Your task to perform on an android device: Open Youtube and go to "Your channel" Image 0: 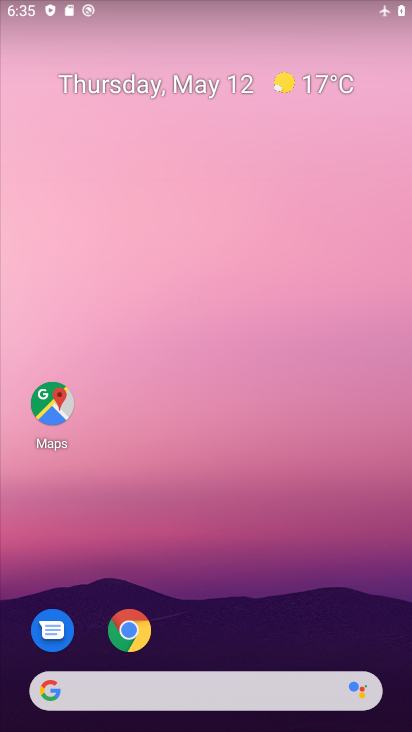
Step 0: drag from (327, 623) to (165, 215)
Your task to perform on an android device: Open Youtube and go to "Your channel" Image 1: 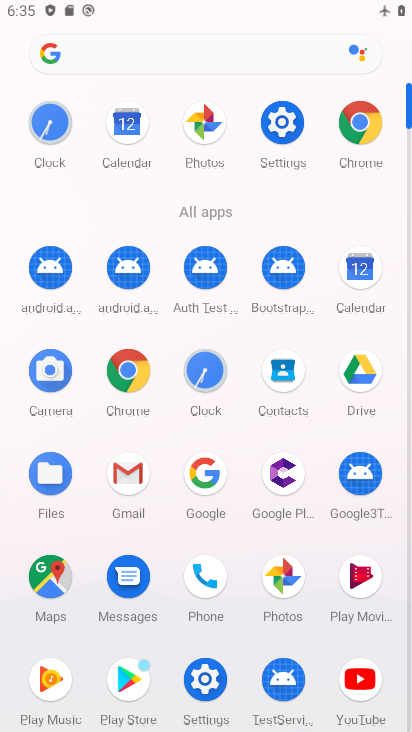
Step 1: click (361, 686)
Your task to perform on an android device: Open Youtube and go to "Your channel" Image 2: 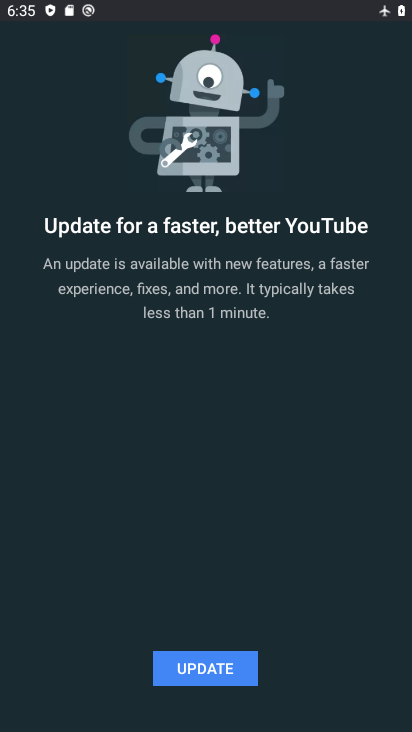
Step 2: click (206, 676)
Your task to perform on an android device: Open Youtube and go to "Your channel" Image 3: 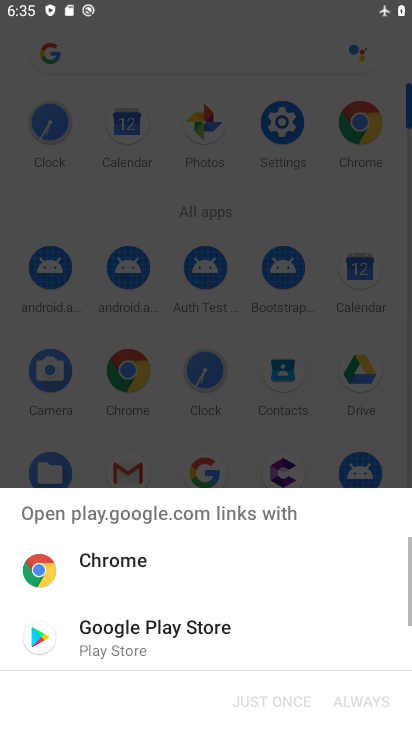
Step 3: click (85, 616)
Your task to perform on an android device: Open Youtube and go to "Your channel" Image 4: 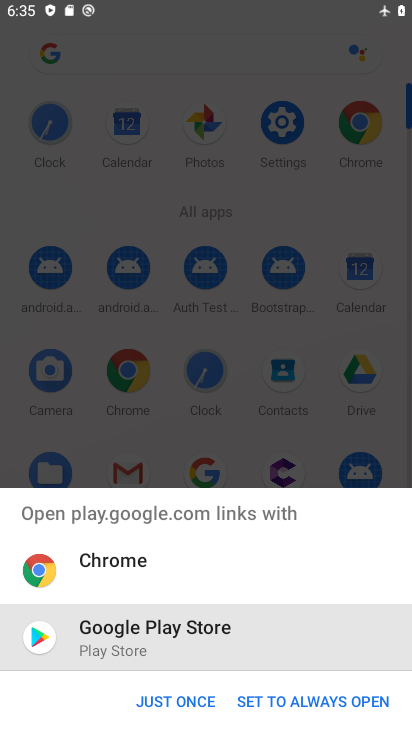
Step 4: click (181, 708)
Your task to perform on an android device: Open Youtube and go to "Your channel" Image 5: 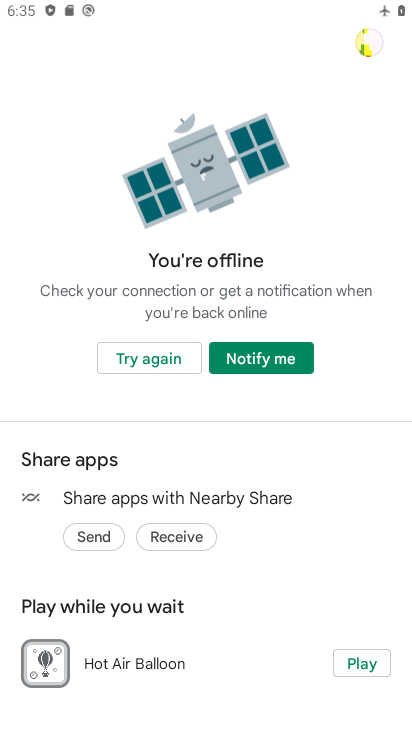
Step 5: click (172, 364)
Your task to perform on an android device: Open Youtube and go to "Your channel" Image 6: 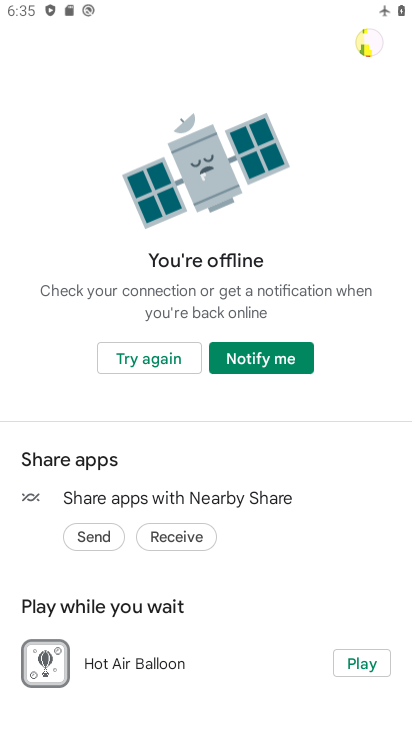
Step 6: click (172, 364)
Your task to perform on an android device: Open Youtube and go to "Your channel" Image 7: 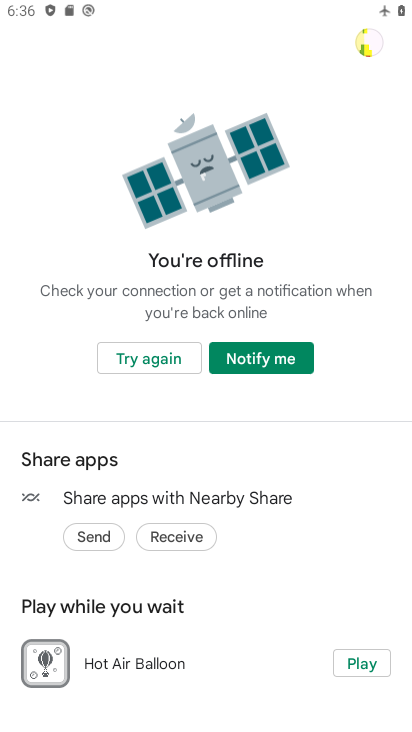
Step 7: task complete